Your task to perform on an android device: Open the stopwatch Image 0: 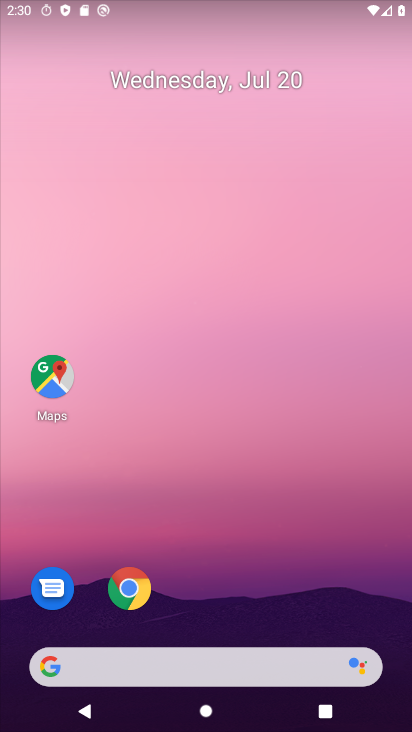
Step 0: drag from (203, 616) to (158, 247)
Your task to perform on an android device: Open the stopwatch Image 1: 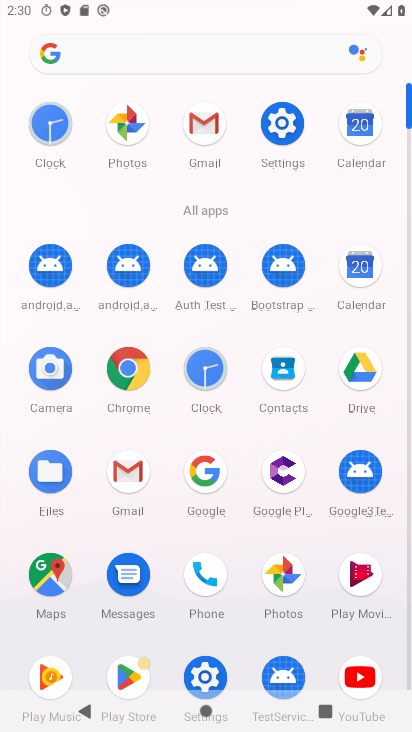
Step 1: click (202, 368)
Your task to perform on an android device: Open the stopwatch Image 2: 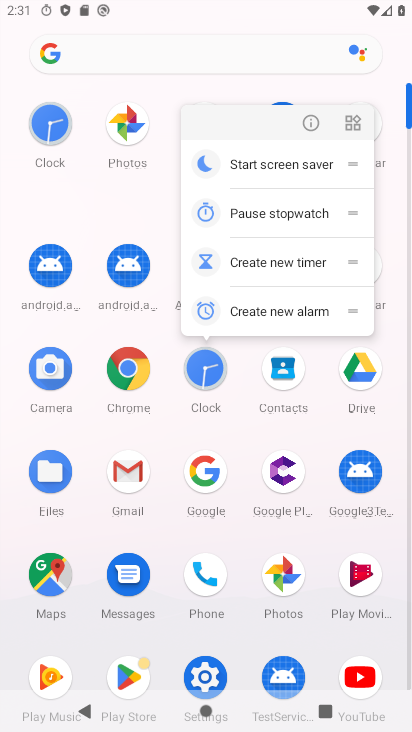
Step 2: click (311, 117)
Your task to perform on an android device: Open the stopwatch Image 3: 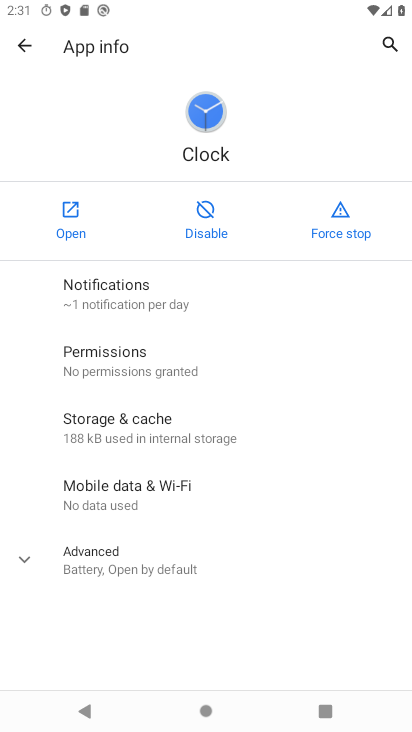
Step 3: click (63, 216)
Your task to perform on an android device: Open the stopwatch Image 4: 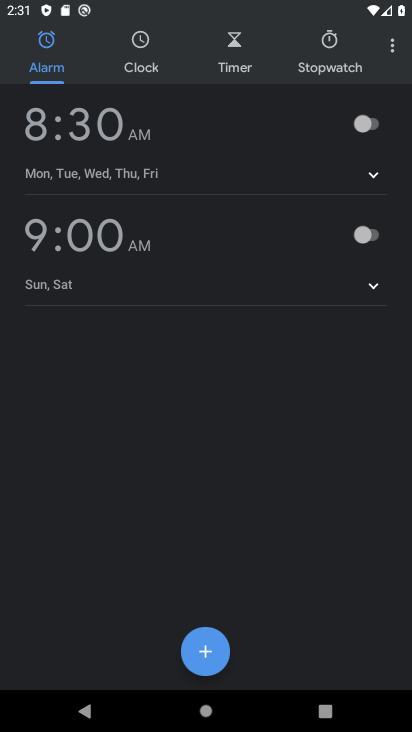
Step 4: click (314, 55)
Your task to perform on an android device: Open the stopwatch Image 5: 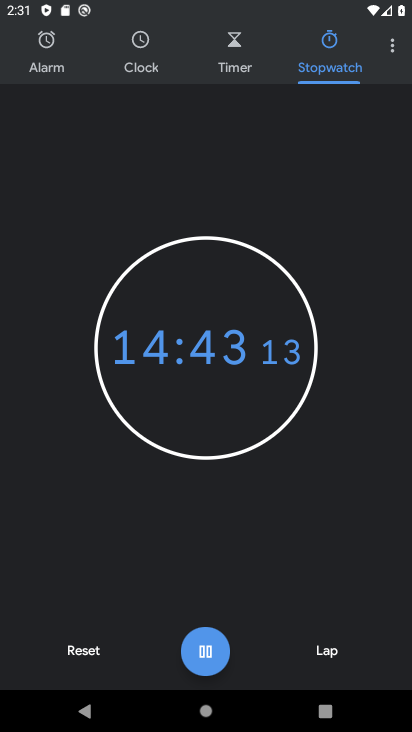
Step 5: click (68, 640)
Your task to perform on an android device: Open the stopwatch Image 6: 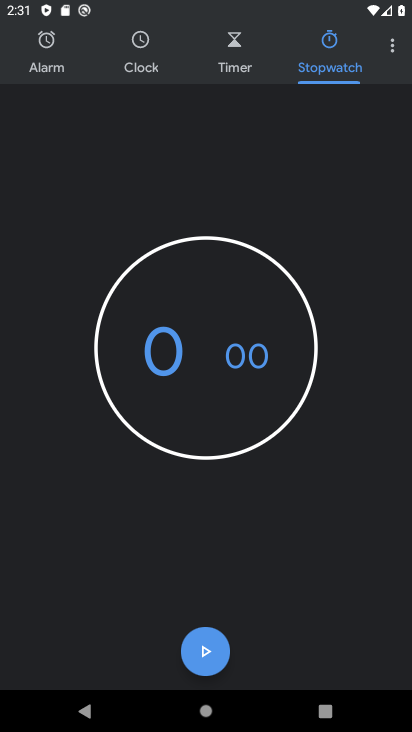
Step 6: click (72, 643)
Your task to perform on an android device: Open the stopwatch Image 7: 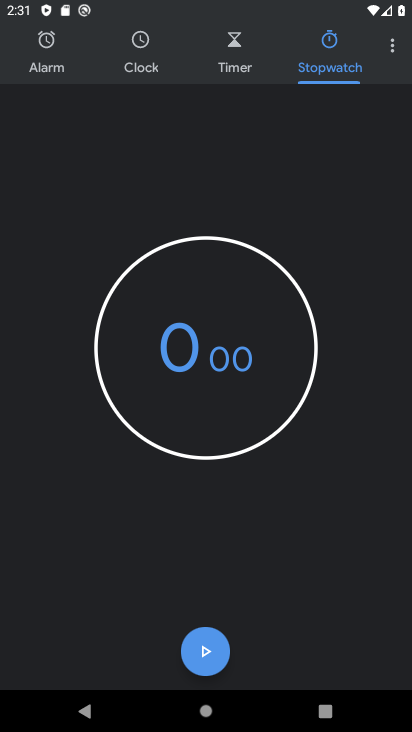
Step 7: click (193, 650)
Your task to perform on an android device: Open the stopwatch Image 8: 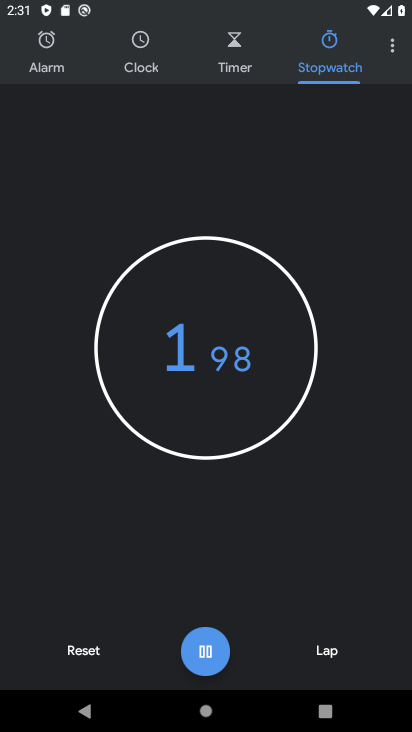
Step 8: task complete